Your task to perform on an android device: install app "Viber Messenger" Image 0: 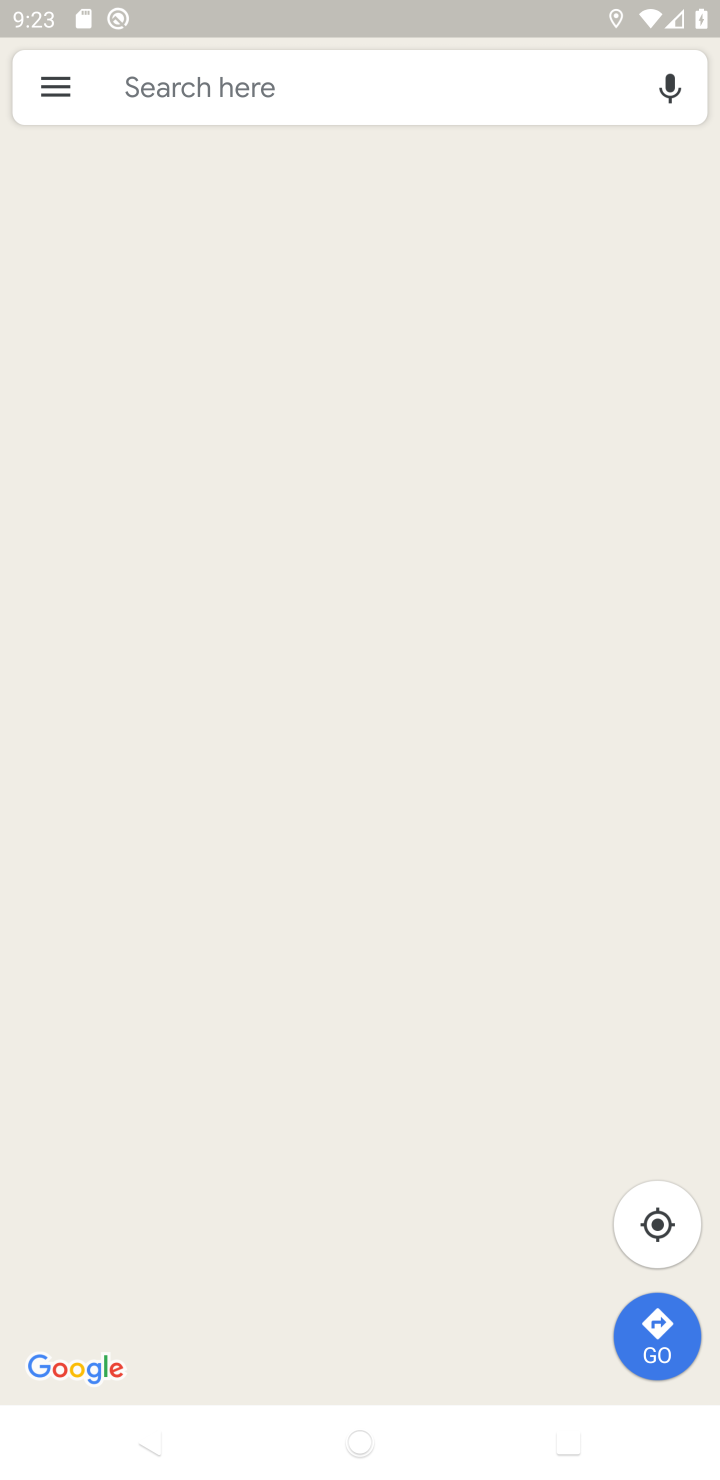
Step 0: press home button
Your task to perform on an android device: install app "Viber Messenger" Image 1: 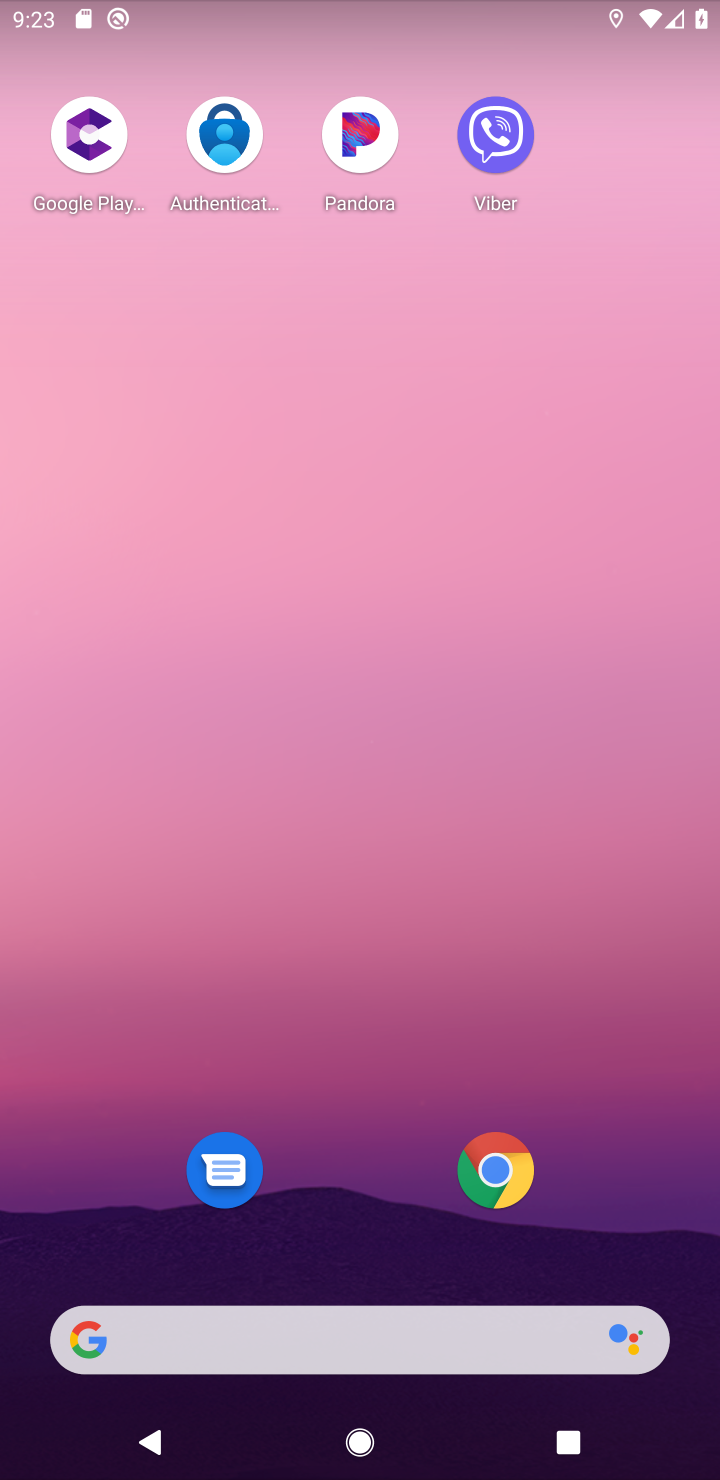
Step 1: drag from (688, 1241) to (451, 87)
Your task to perform on an android device: install app "Viber Messenger" Image 2: 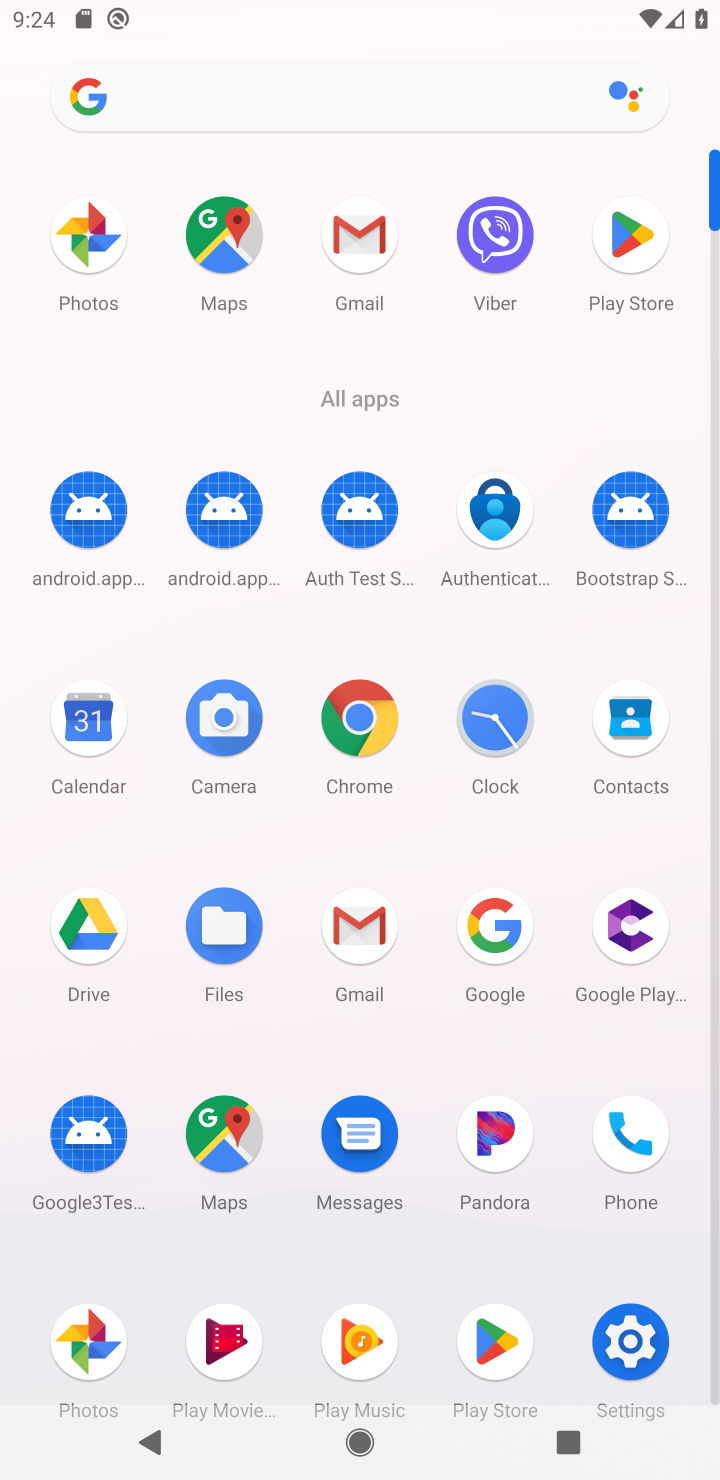
Step 2: click (617, 253)
Your task to perform on an android device: install app "Viber Messenger" Image 3: 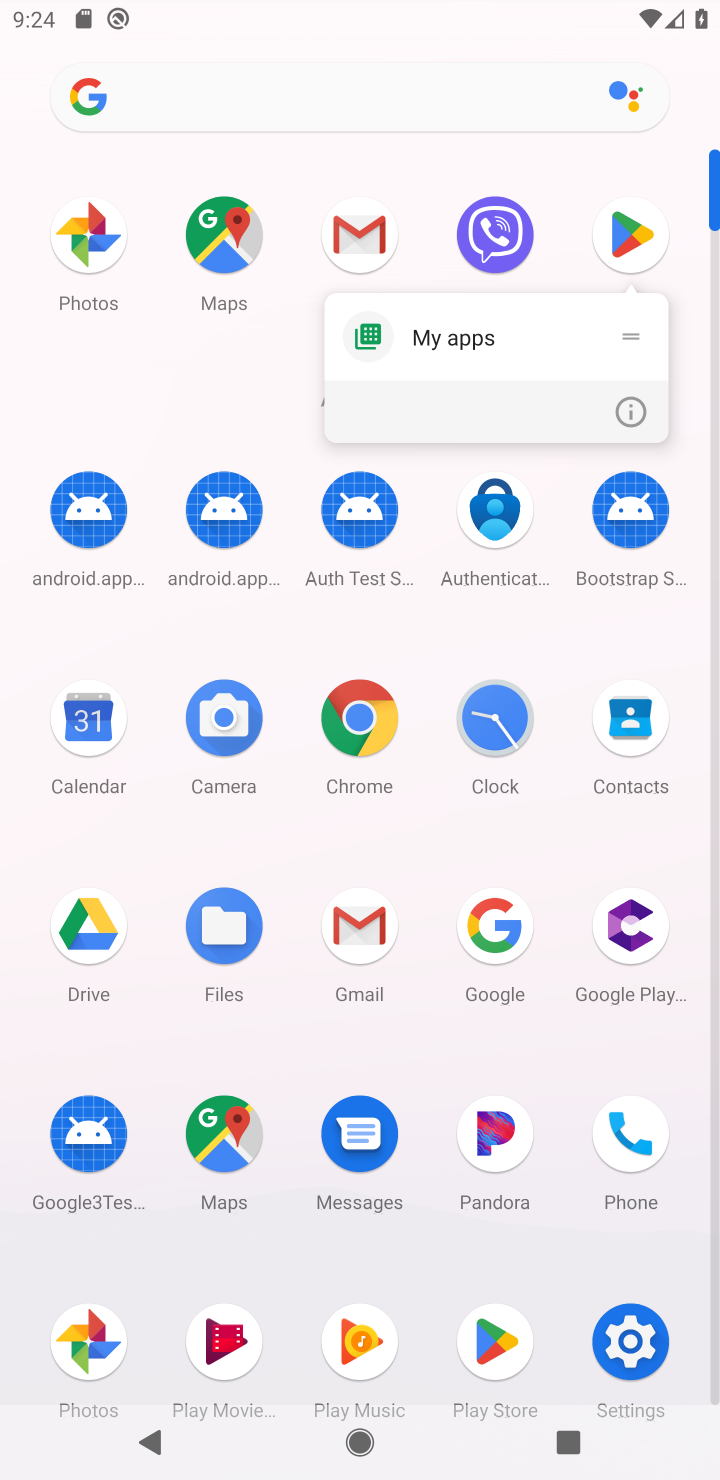
Step 3: click (617, 253)
Your task to perform on an android device: install app "Viber Messenger" Image 4: 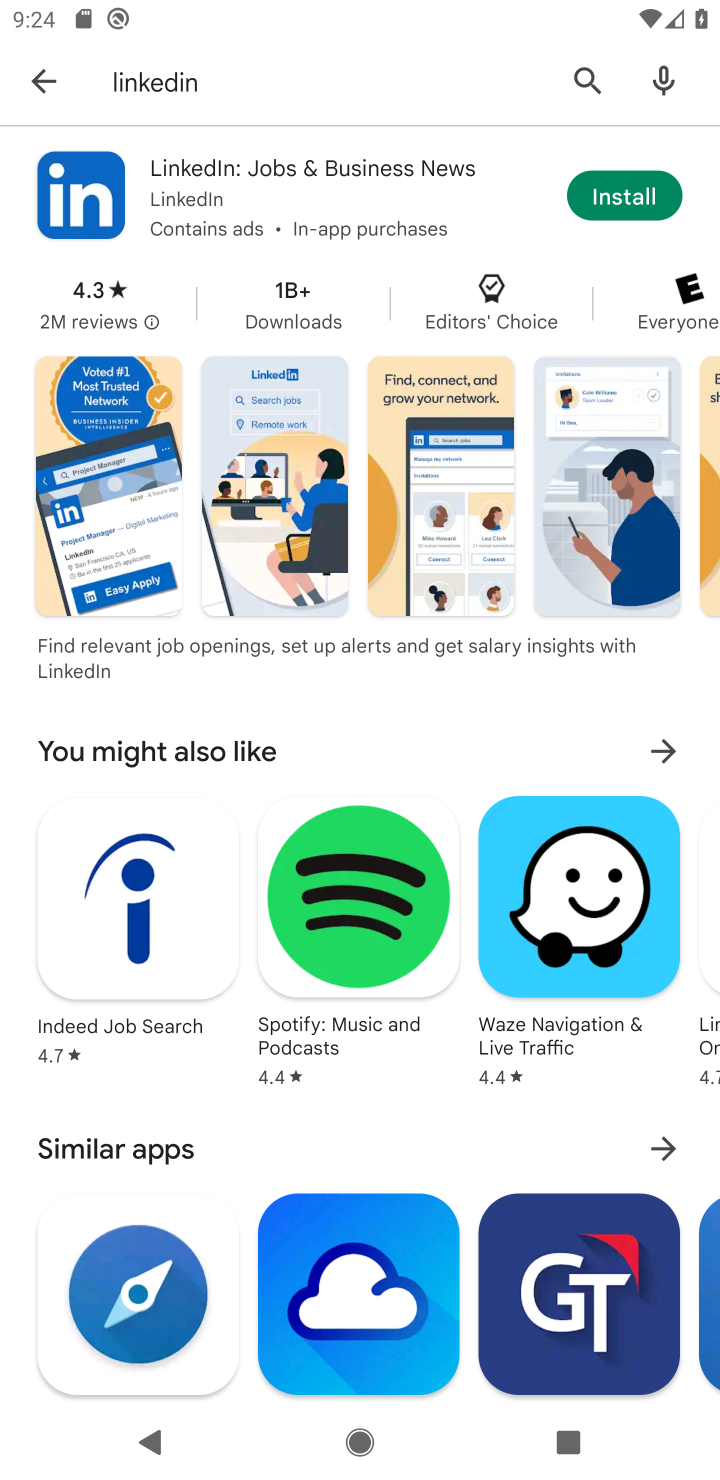
Step 4: press back button
Your task to perform on an android device: install app "Viber Messenger" Image 5: 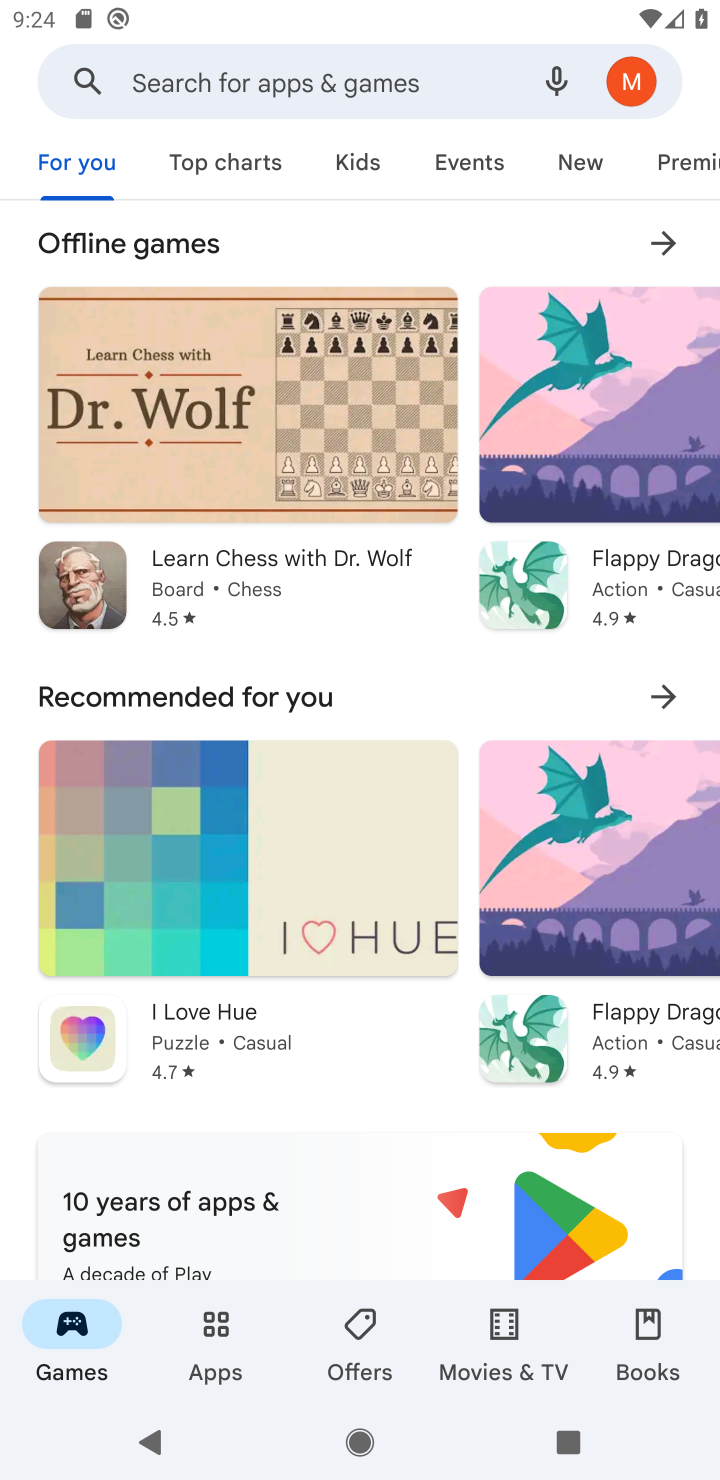
Step 5: click (221, 82)
Your task to perform on an android device: install app "Viber Messenger" Image 6: 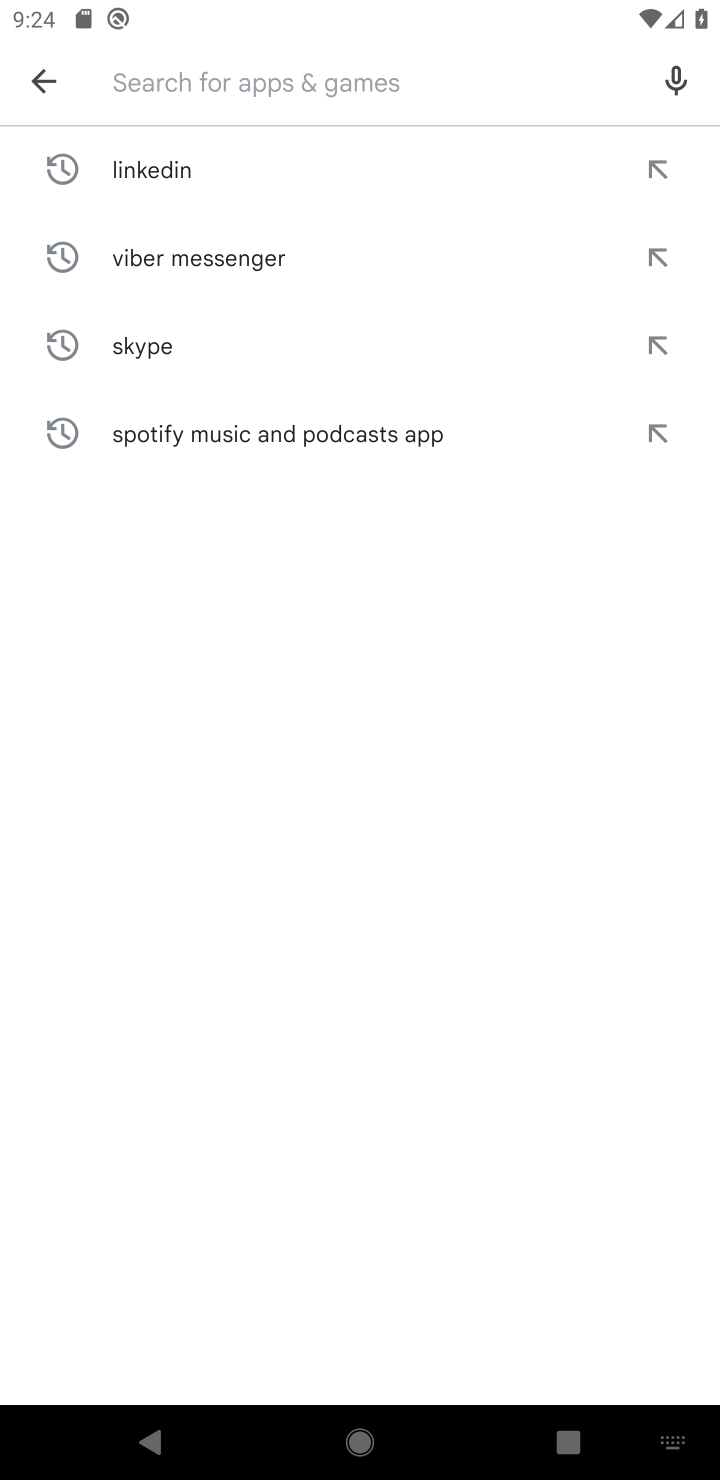
Step 6: type "Viber Messenger"
Your task to perform on an android device: install app "Viber Messenger" Image 7: 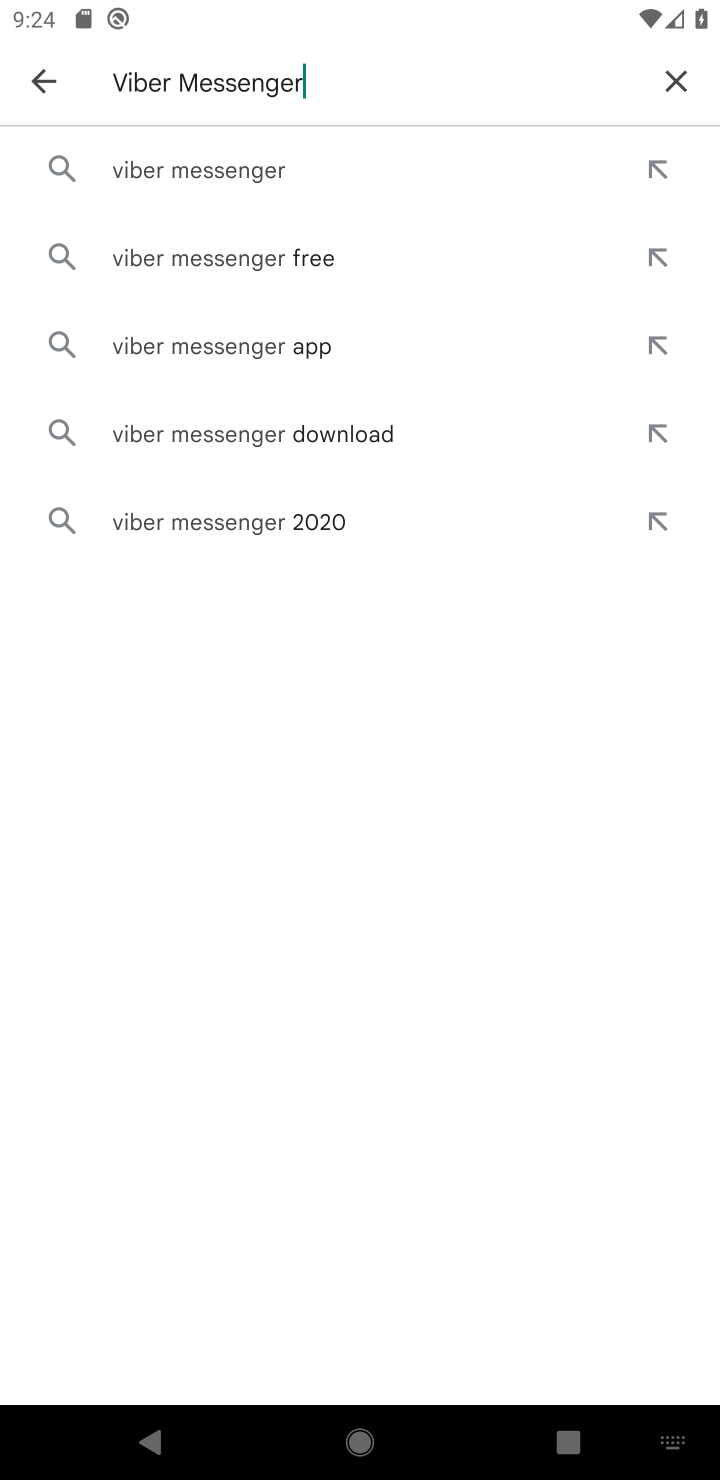
Step 7: click (237, 175)
Your task to perform on an android device: install app "Viber Messenger" Image 8: 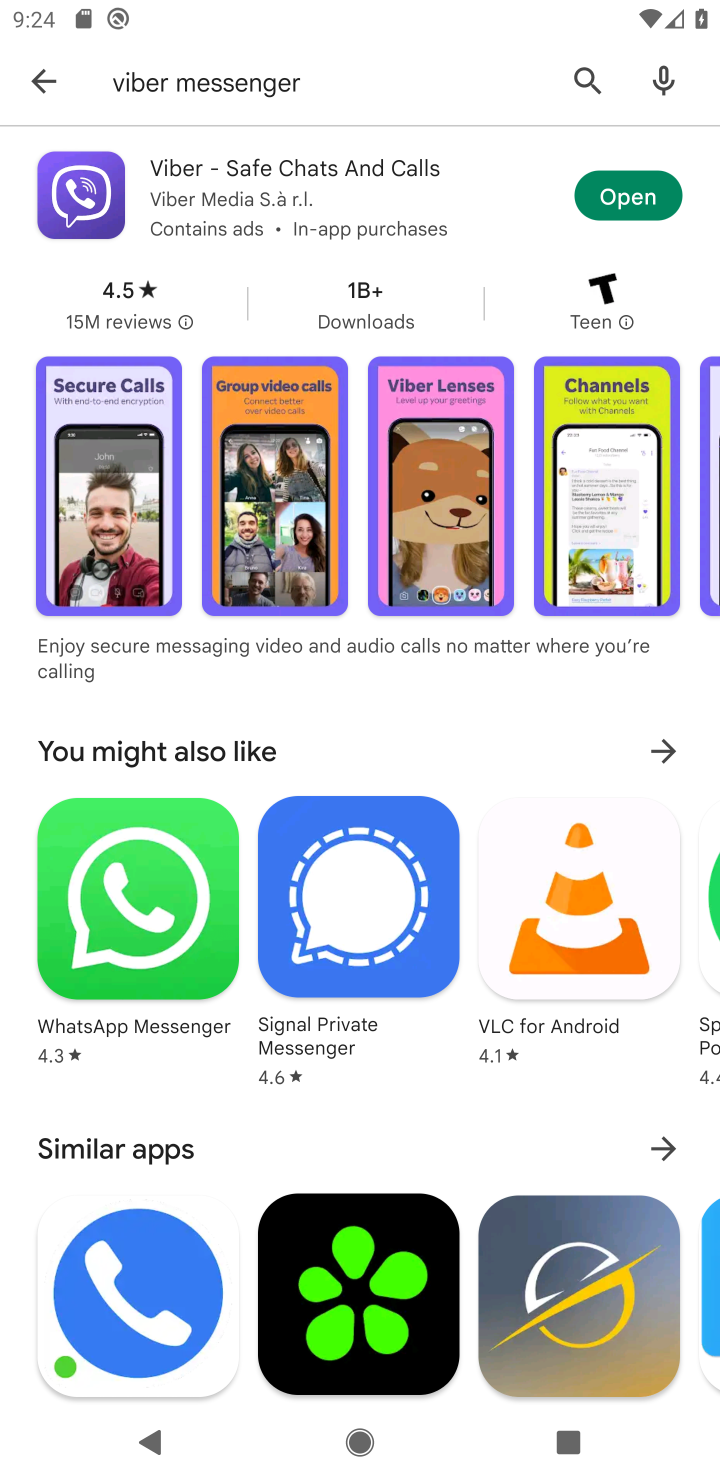
Step 8: task complete